Your task to perform on an android device: change notifications settings Image 0: 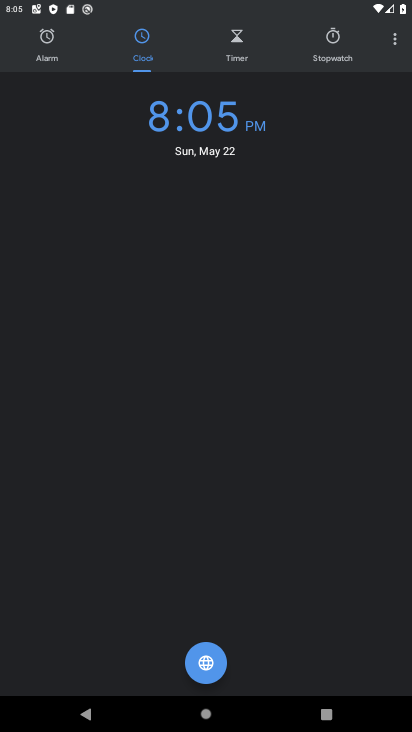
Step 0: press home button
Your task to perform on an android device: change notifications settings Image 1: 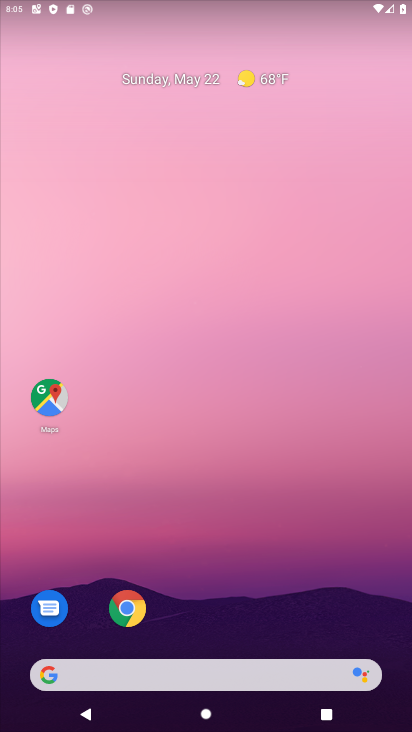
Step 1: drag from (236, 635) to (241, 76)
Your task to perform on an android device: change notifications settings Image 2: 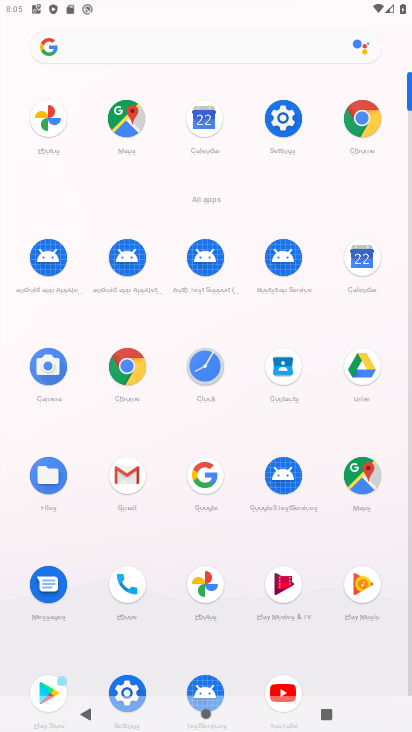
Step 2: click (277, 116)
Your task to perform on an android device: change notifications settings Image 3: 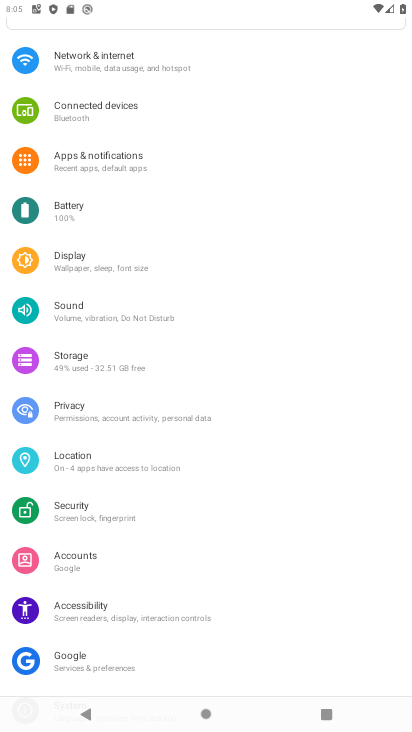
Step 3: click (112, 157)
Your task to perform on an android device: change notifications settings Image 4: 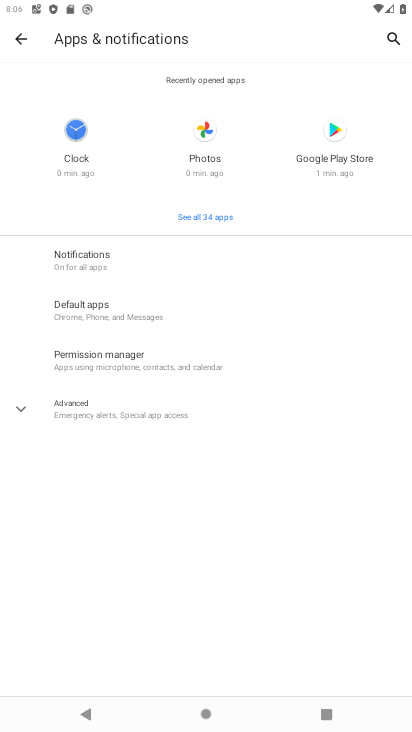
Step 4: click (83, 253)
Your task to perform on an android device: change notifications settings Image 5: 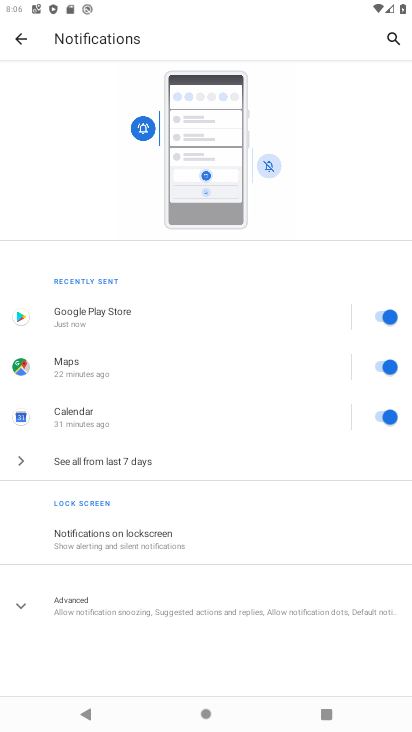
Step 5: click (72, 603)
Your task to perform on an android device: change notifications settings Image 6: 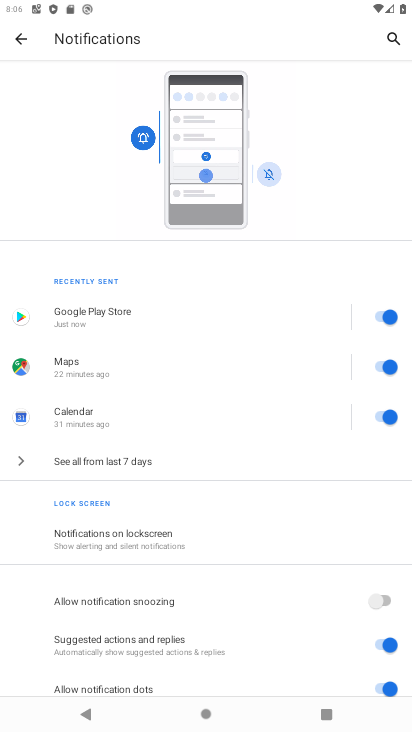
Step 6: click (381, 596)
Your task to perform on an android device: change notifications settings Image 7: 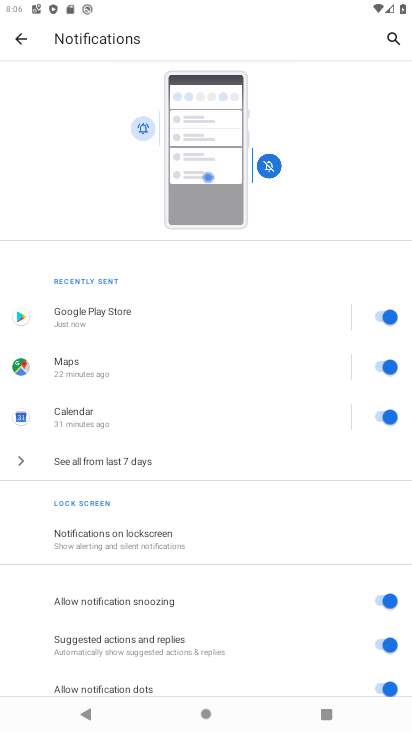
Step 7: task complete